Your task to perform on an android device: toggle location history Image 0: 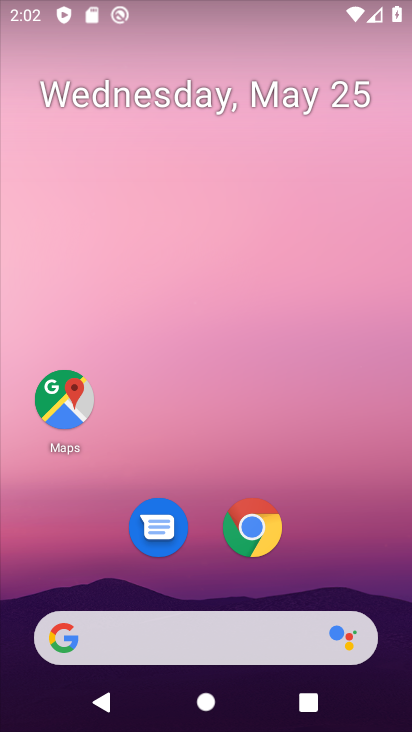
Step 0: drag from (95, 614) to (167, 151)
Your task to perform on an android device: toggle location history Image 1: 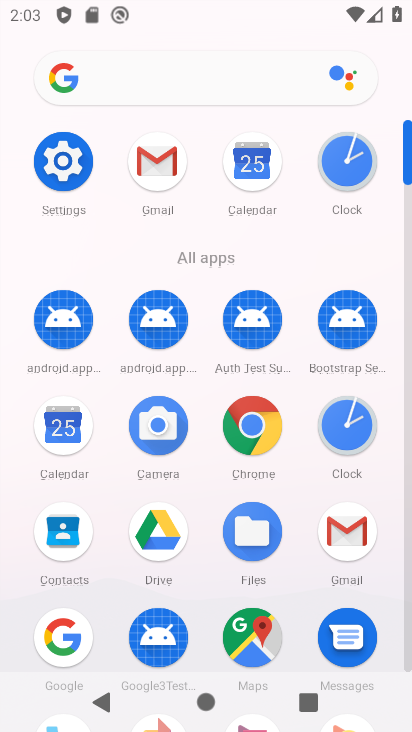
Step 1: click (61, 143)
Your task to perform on an android device: toggle location history Image 2: 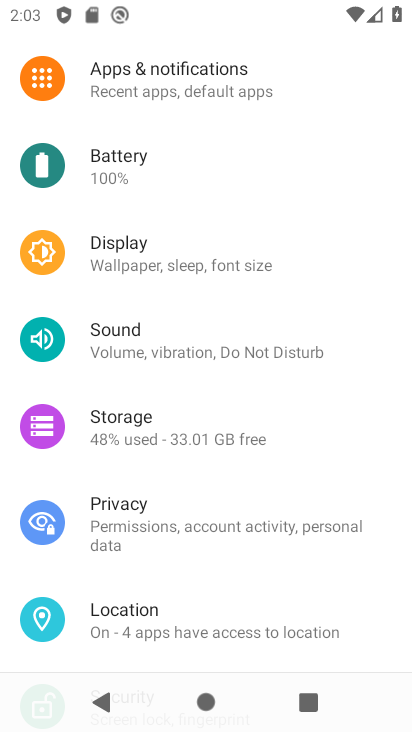
Step 2: click (145, 601)
Your task to perform on an android device: toggle location history Image 3: 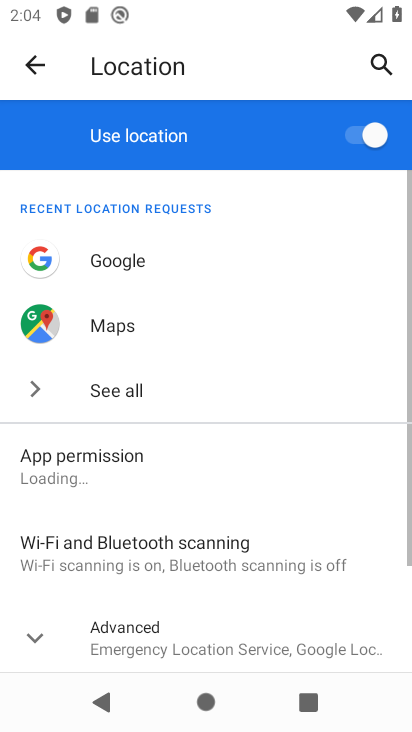
Step 3: drag from (177, 591) to (222, 175)
Your task to perform on an android device: toggle location history Image 4: 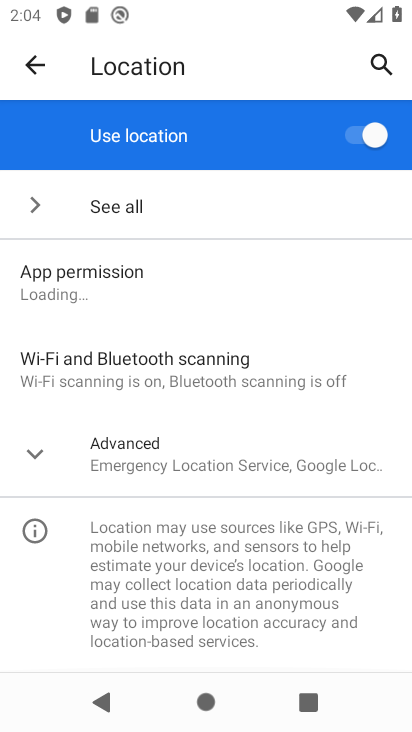
Step 4: click (171, 435)
Your task to perform on an android device: toggle location history Image 5: 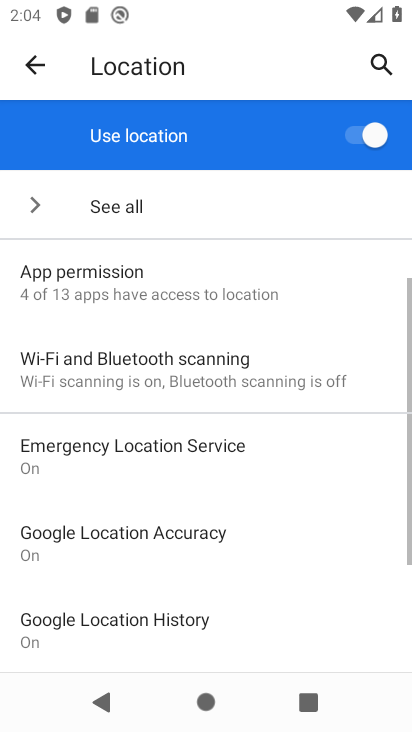
Step 5: click (98, 623)
Your task to perform on an android device: toggle location history Image 6: 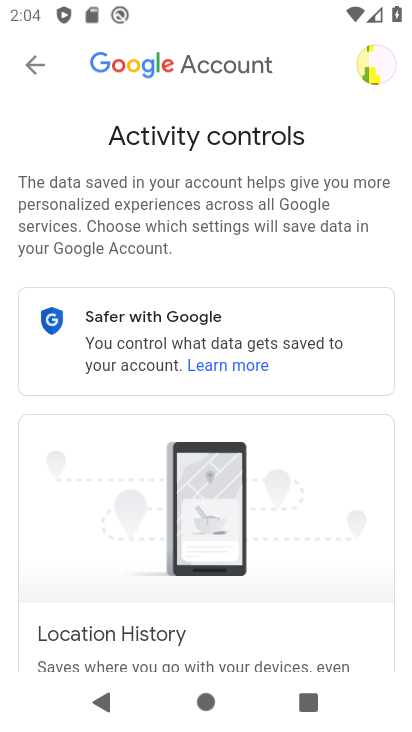
Step 6: drag from (153, 588) to (269, 6)
Your task to perform on an android device: toggle location history Image 7: 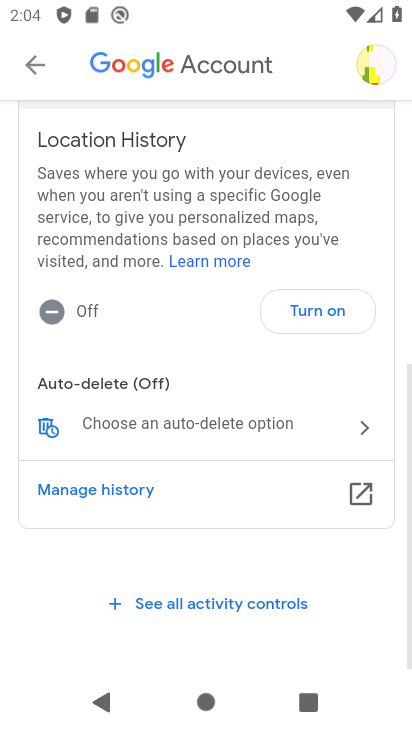
Step 7: click (331, 305)
Your task to perform on an android device: toggle location history Image 8: 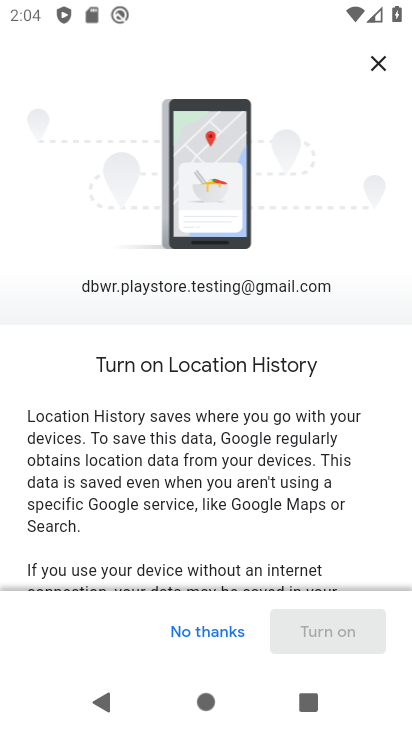
Step 8: drag from (213, 582) to (263, 11)
Your task to perform on an android device: toggle location history Image 9: 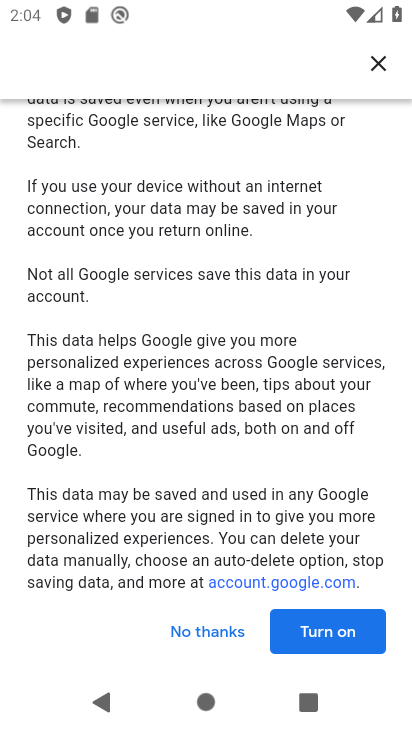
Step 9: click (302, 641)
Your task to perform on an android device: toggle location history Image 10: 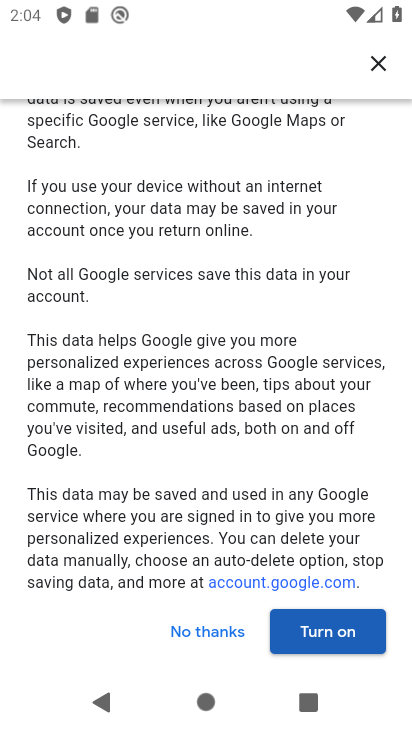
Step 10: click (337, 623)
Your task to perform on an android device: toggle location history Image 11: 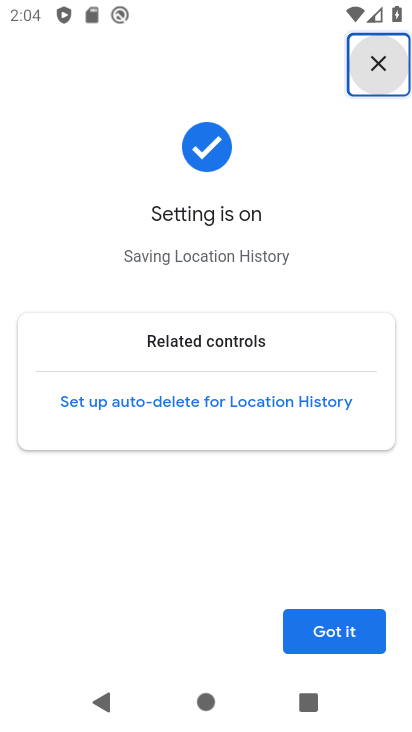
Step 11: task complete